Your task to perform on an android device: Search for pizza restaurants on Maps Image 0: 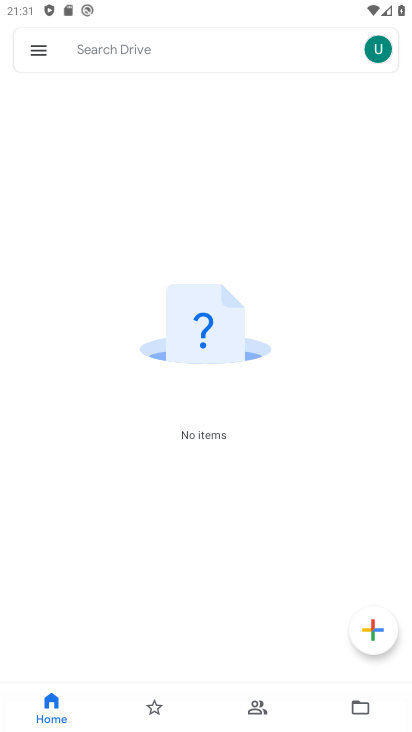
Step 0: press home button
Your task to perform on an android device: Search for pizza restaurants on Maps Image 1: 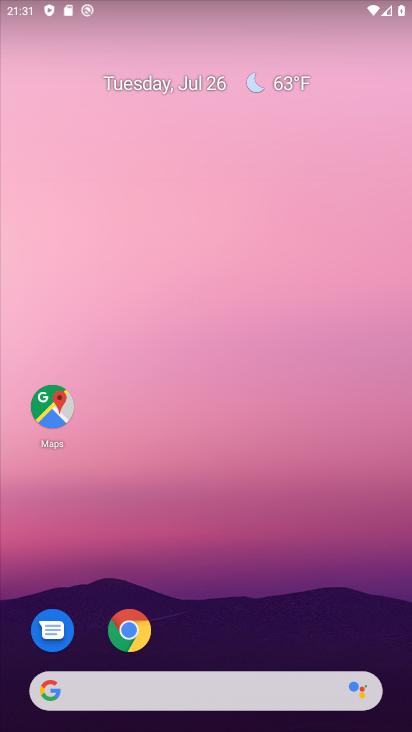
Step 1: click (61, 395)
Your task to perform on an android device: Search for pizza restaurants on Maps Image 2: 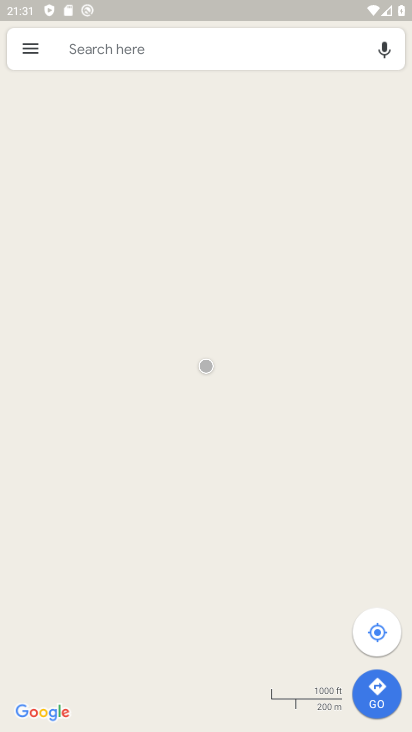
Step 2: click (170, 51)
Your task to perform on an android device: Search for pizza restaurants on Maps Image 3: 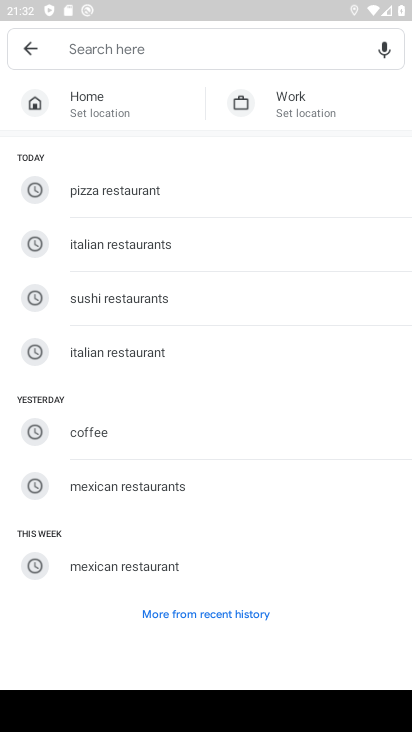
Step 3: type "pizza restaurants"
Your task to perform on an android device: Search for pizza restaurants on Maps Image 4: 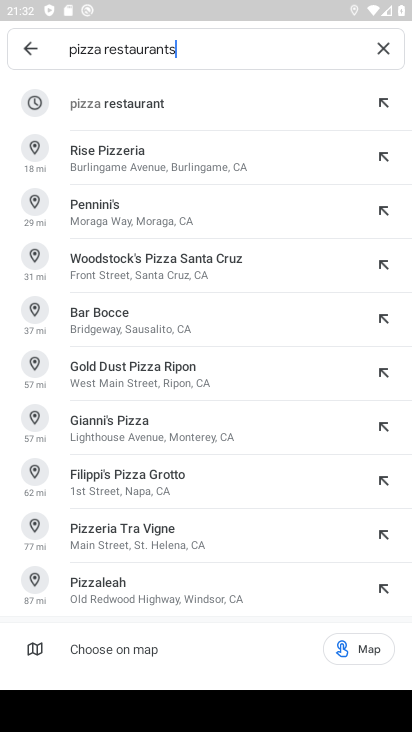
Step 4: click (92, 102)
Your task to perform on an android device: Search for pizza restaurants on Maps Image 5: 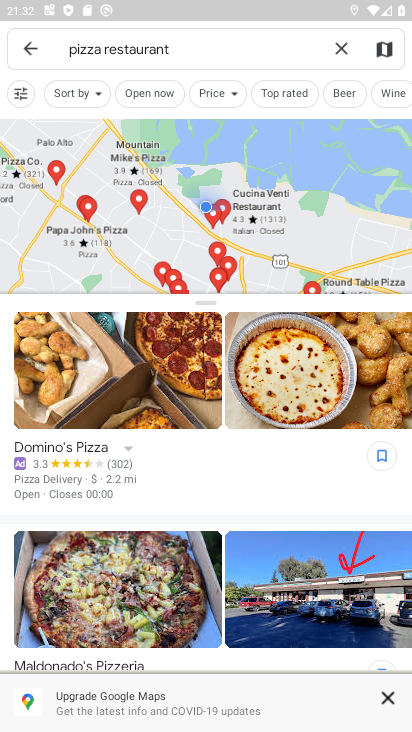
Step 5: task complete